Your task to perform on an android device: delete location history Image 0: 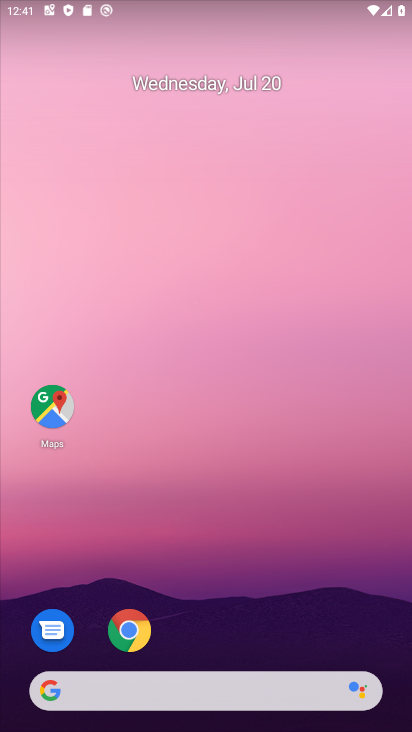
Step 0: press home button
Your task to perform on an android device: delete location history Image 1: 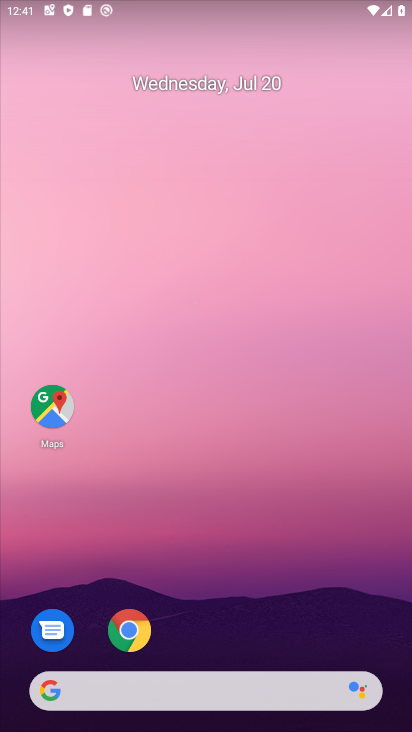
Step 1: drag from (265, 626) to (260, 161)
Your task to perform on an android device: delete location history Image 2: 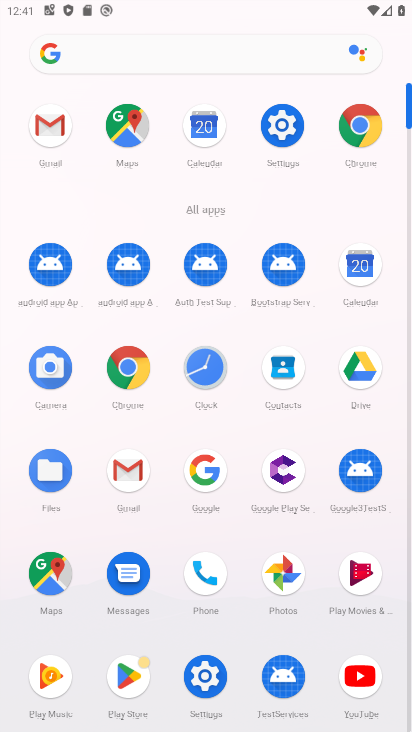
Step 2: click (283, 136)
Your task to perform on an android device: delete location history Image 3: 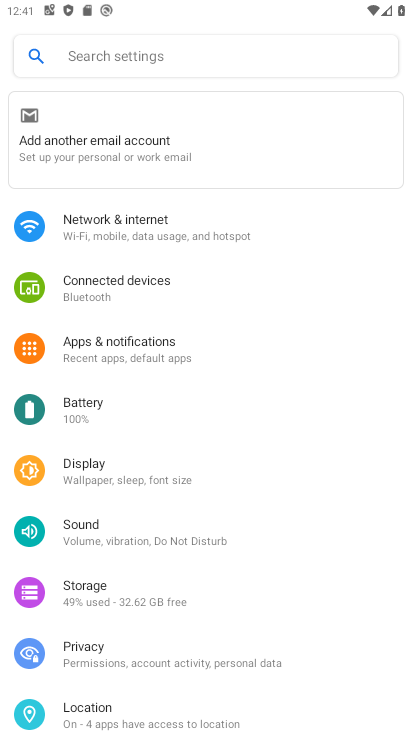
Step 3: click (119, 710)
Your task to perform on an android device: delete location history Image 4: 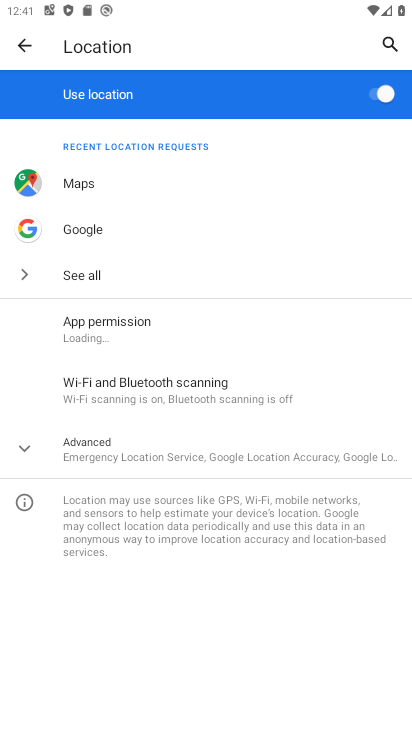
Step 4: click (27, 445)
Your task to perform on an android device: delete location history Image 5: 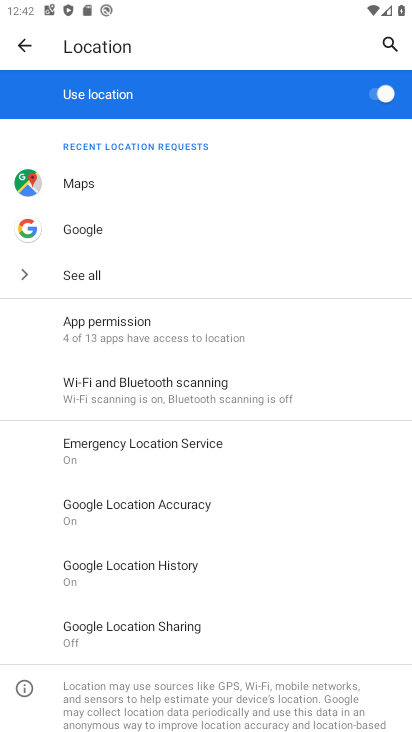
Step 5: click (173, 570)
Your task to perform on an android device: delete location history Image 6: 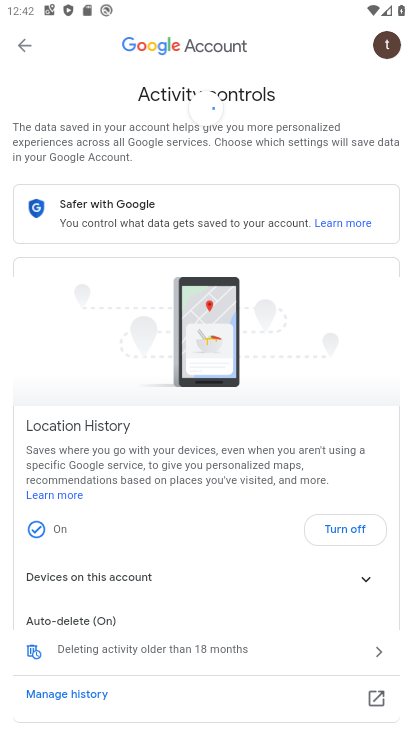
Step 6: drag from (209, 555) to (146, 84)
Your task to perform on an android device: delete location history Image 7: 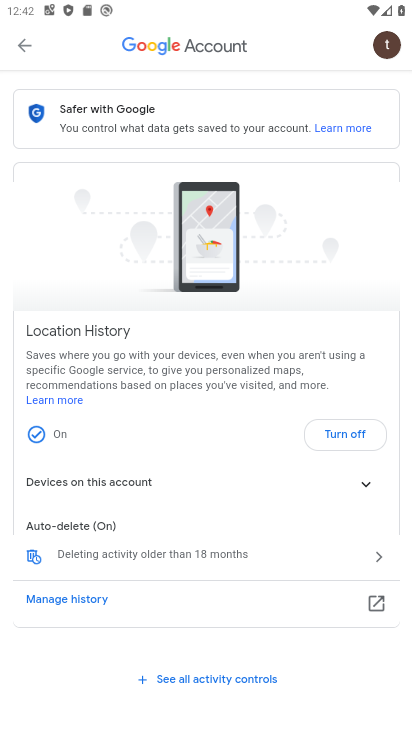
Step 7: click (36, 558)
Your task to perform on an android device: delete location history Image 8: 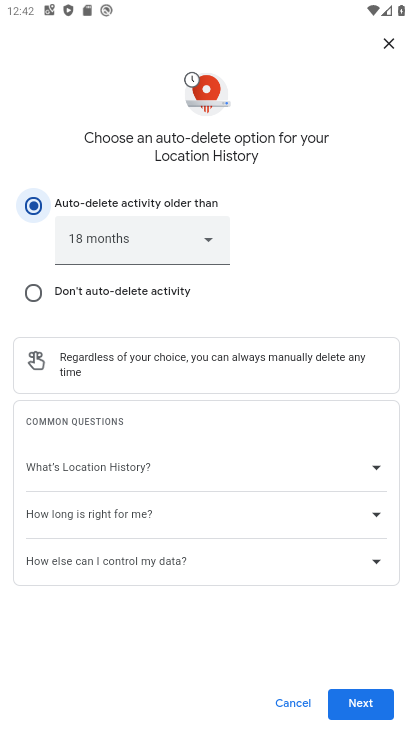
Step 8: click (354, 705)
Your task to perform on an android device: delete location history Image 9: 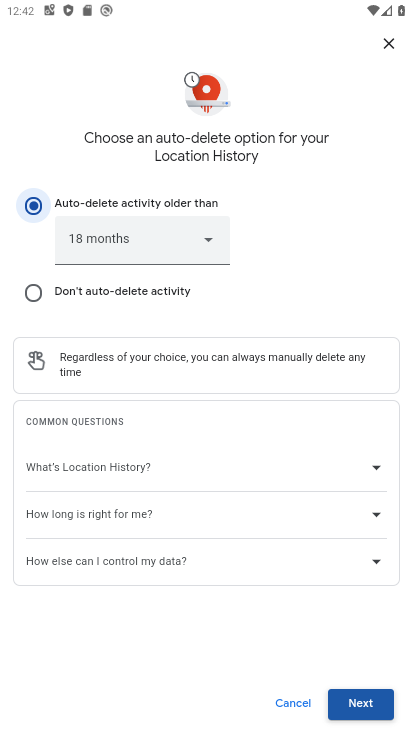
Step 9: click (377, 706)
Your task to perform on an android device: delete location history Image 10: 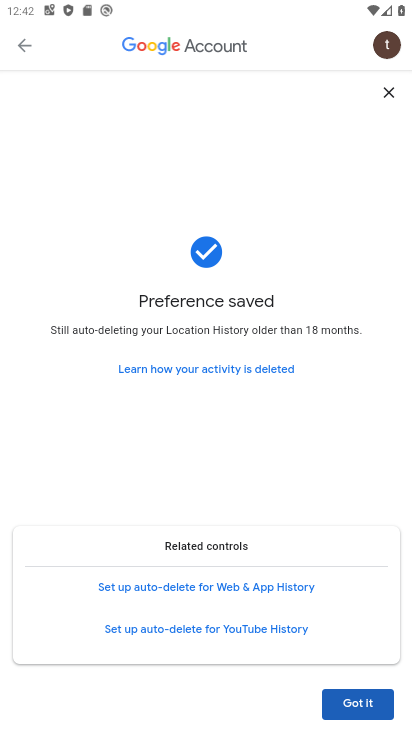
Step 10: click (376, 704)
Your task to perform on an android device: delete location history Image 11: 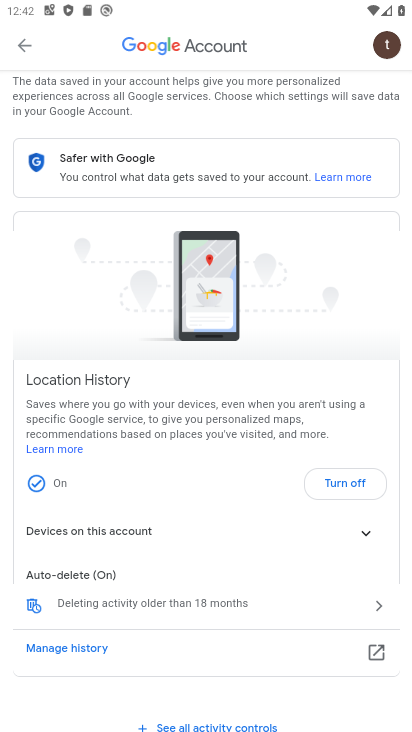
Step 11: task complete